Your task to perform on an android device: turn on the 24-hour format for clock Image 0: 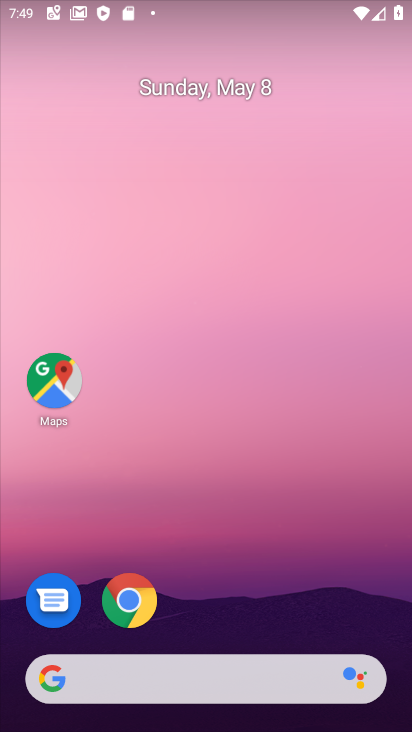
Step 0: drag from (320, 705) to (221, 358)
Your task to perform on an android device: turn on the 24-hour format for clock Image 1: 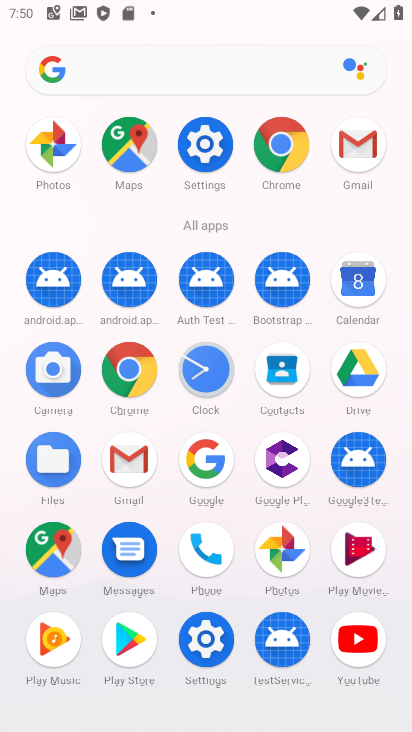
Step 1: click (221, 358)
Your task to perform on an android device: turn on the 24-hour format for clock Image 2: 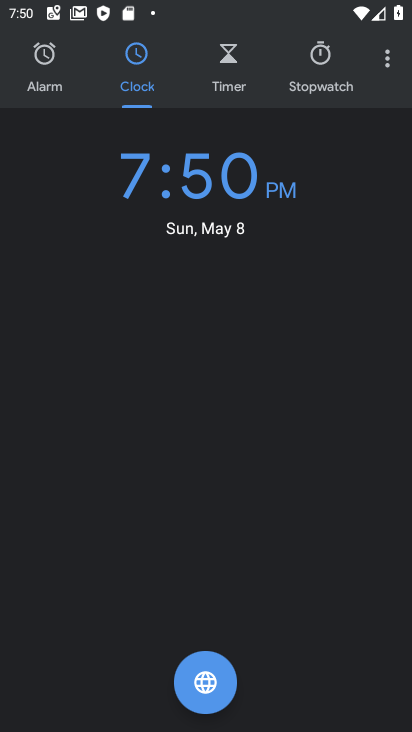
Step 2: click (386, 75)
Your task to perform on an android device: turn on the 24-hour format for clock Image 3: 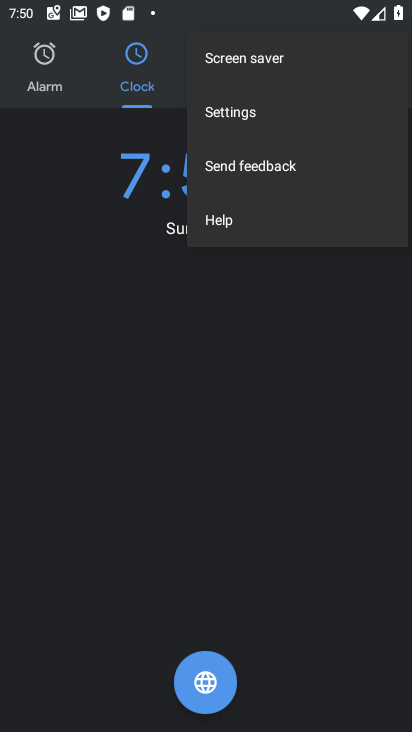
Step 3: click (256, 120)
Your task to perform on an android device: turn on the 24-hour format for clock Image 4: 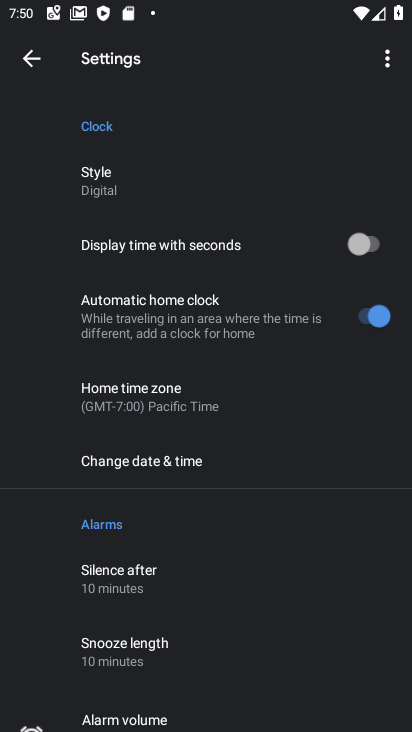
Step 4: click (198, 452)
Your task to perform on an android device: turn on the 24-hour format for clock Image 5: 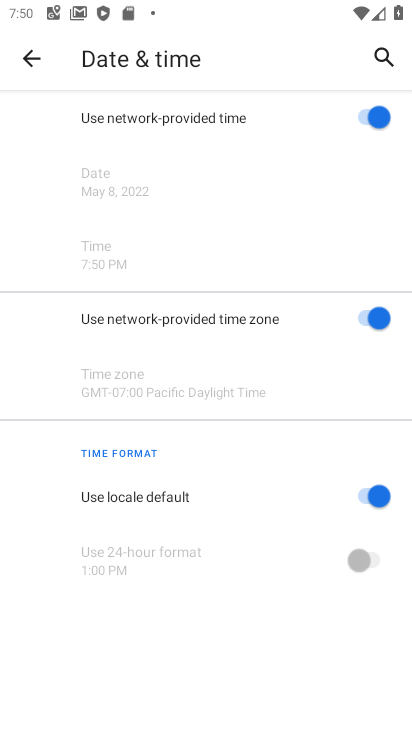
Step 5: click (374, 498)
Your task to perform on an android device: turn on the 24-hour format for clock Image 6: 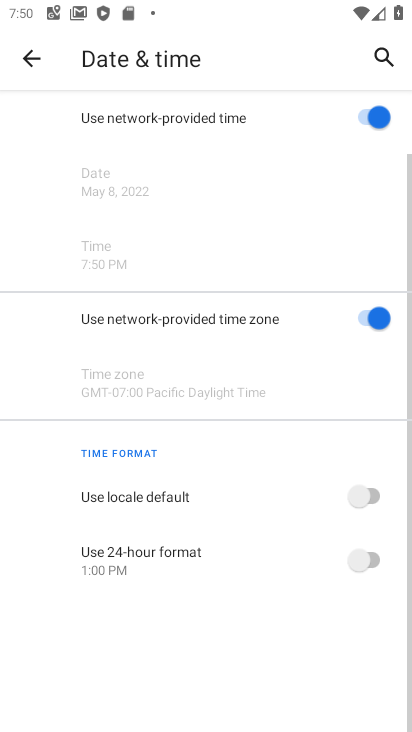
Step 6: click (362, 562)
Your task to perform on an android device: turn on the 24-hour format for clock Image 7: 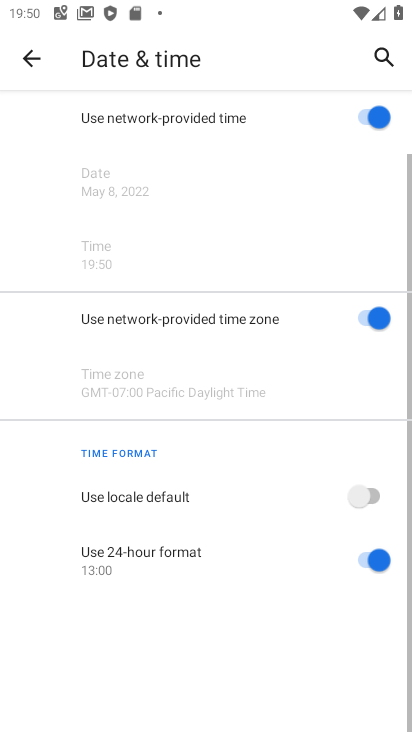
Step 7: task complete